Your task to perform on an android device: Open my contact list Image 0: 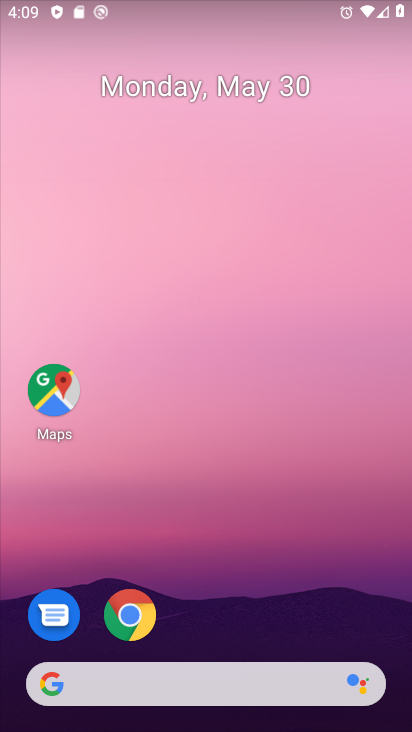
Step 0: drag from (252, 576) to (260, 111)
Your task to perform on an android device: Open my contact list Image 1: 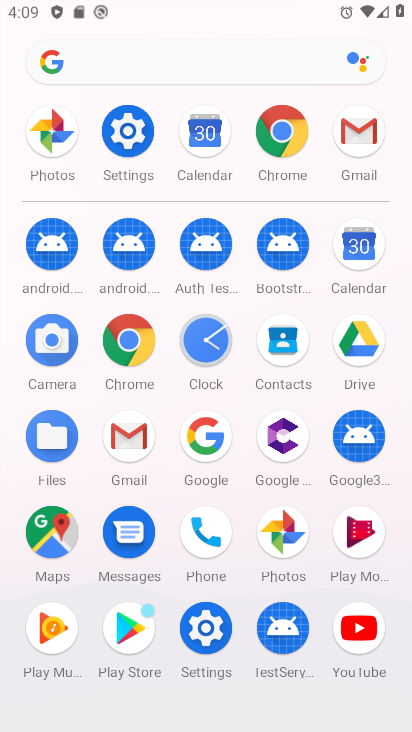
Step 1: click (276, 337)
Your task to perform on an android device: Open my contact list Image 2: 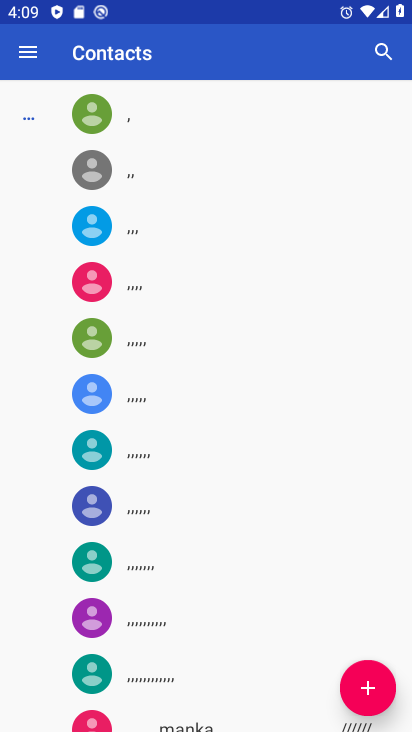
Step 2: task complete